Your task to perform on an android device: install app "Facebook Lite" Image 0: 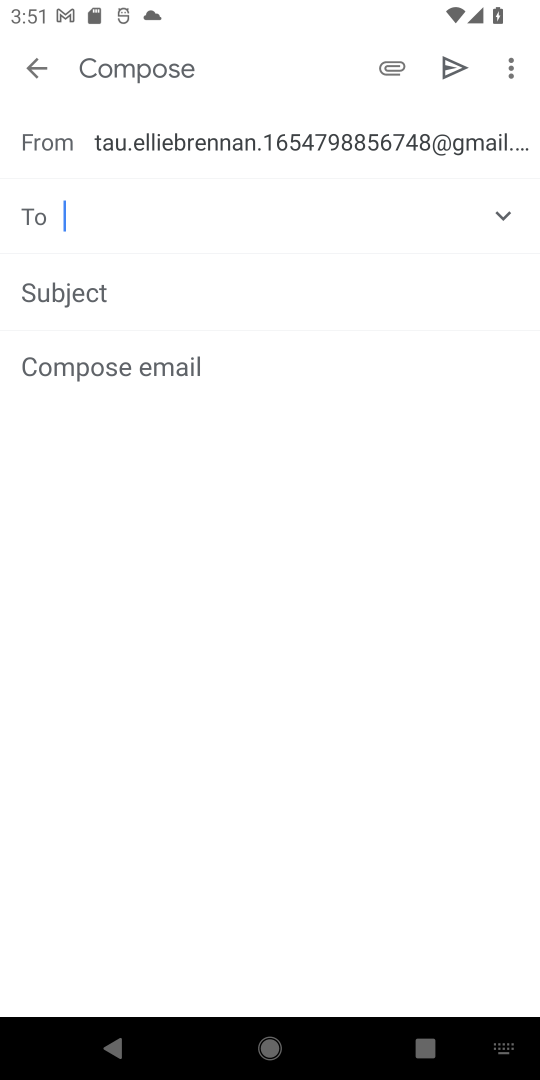
Step 0: press back button
Your task to perform on an android device: install app "Facebook Lite" Image 1: 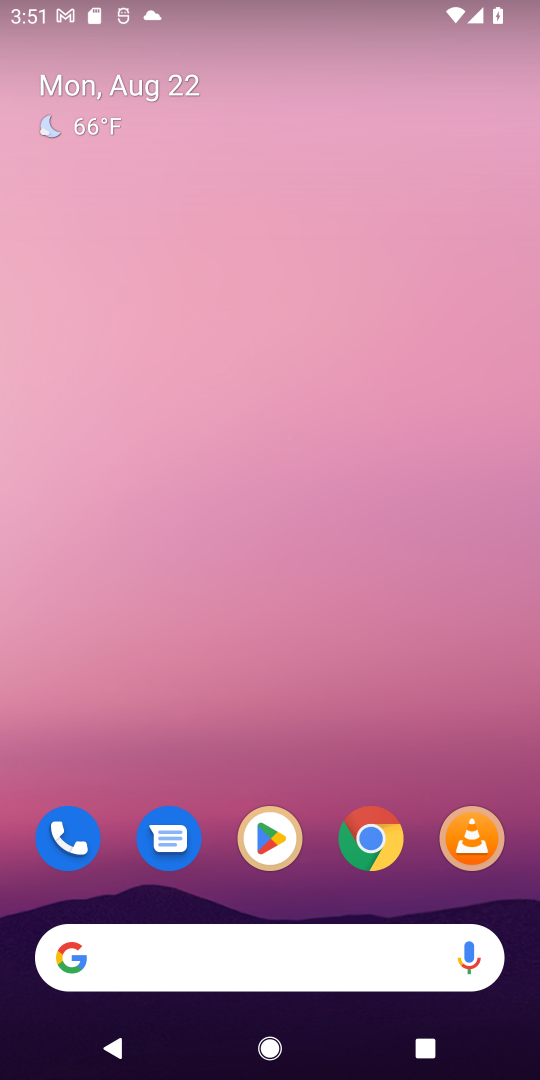
Step 1: click (269, 846)
Your task to perform on an android device: install app "Facebook Lite" Image 2: 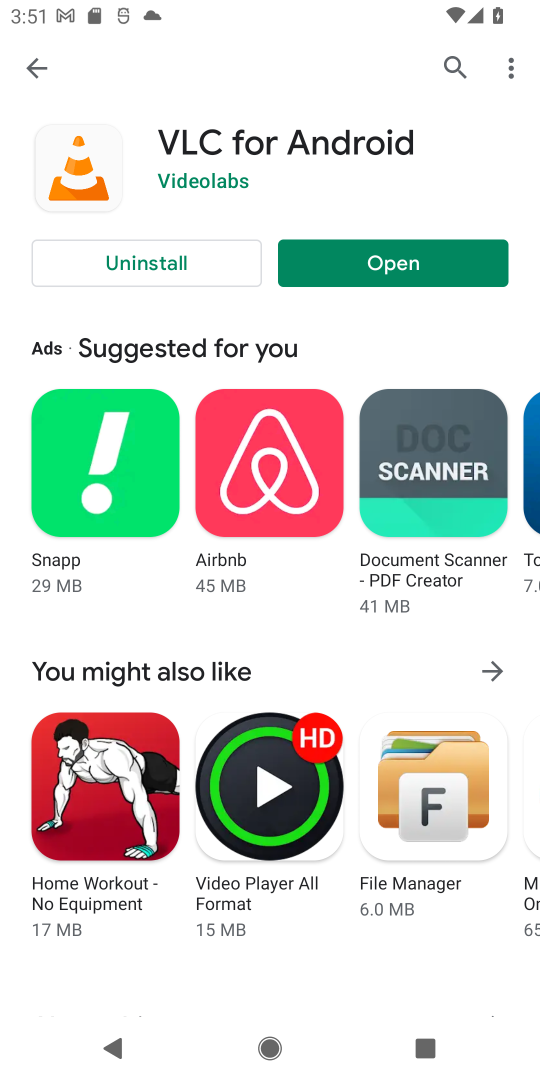
Step 2: click (449, 58)
Your task to perform on an android device: install app "Facebook Lite" Image 3: 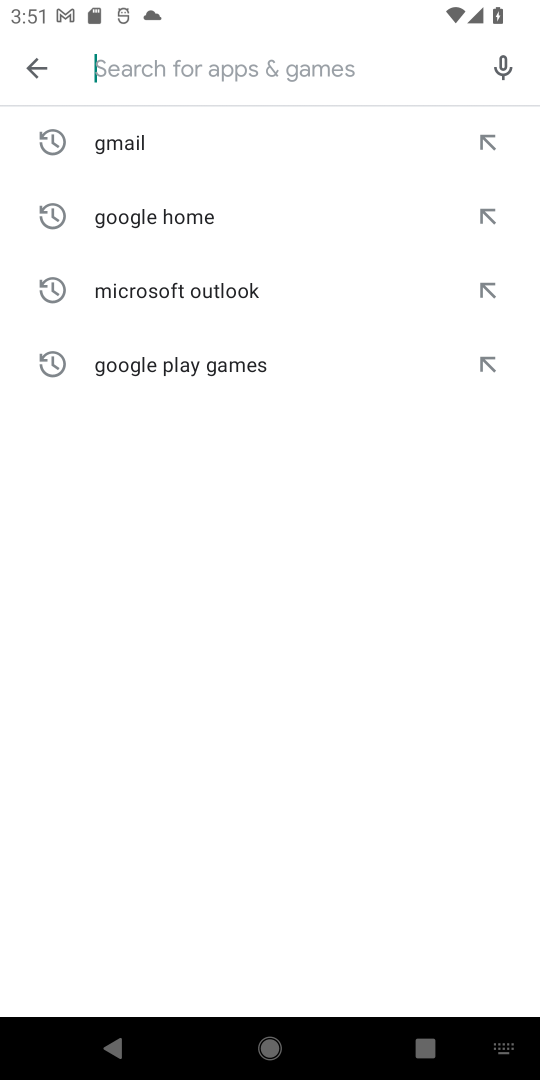
Step 3: click (179, 85)
Your task to perform on an android device: install app "Facebook Lite" Image 4: 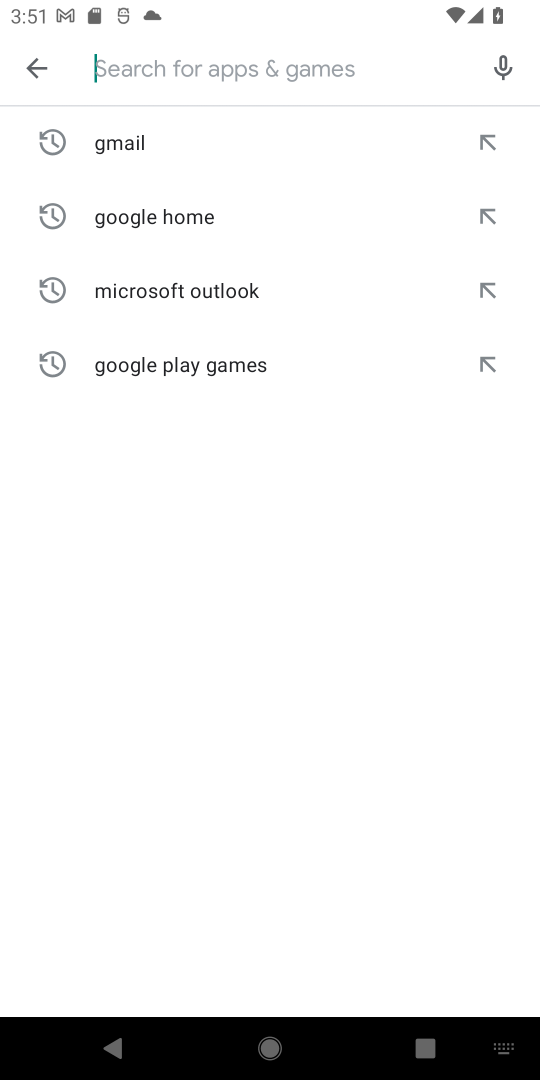
Step 4: type "Facebook Lite"
Your task to perform on an android device: install app "Facebook Lite" Image 5: 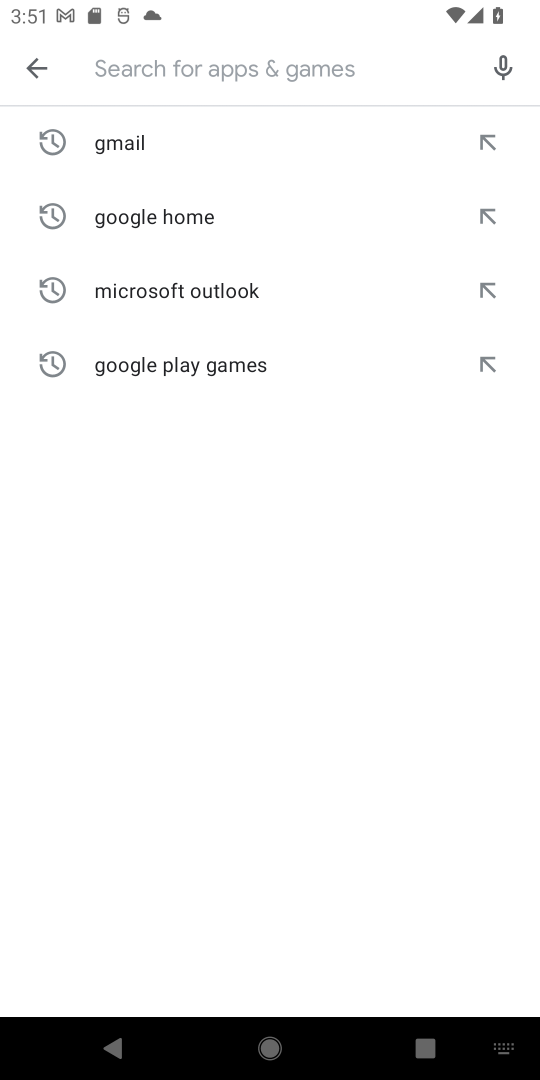
Step 5: click (301, 643)
Your task to perform on an android device: install app "Facebook Lite" Image 6: 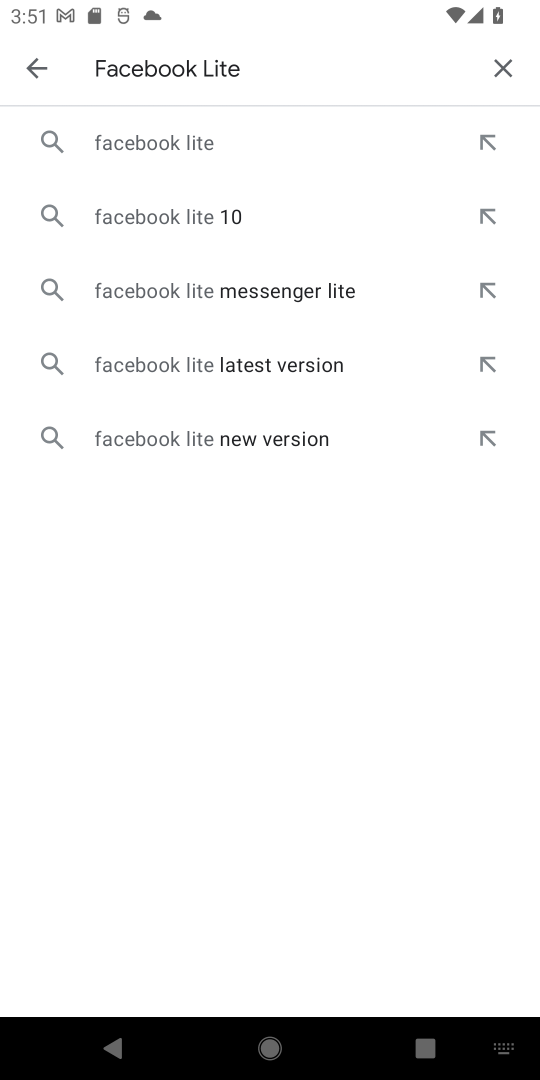
Step 6: click (228, 154)
Your task to perform on an android device: install app "Facebook Lite" Image 7: 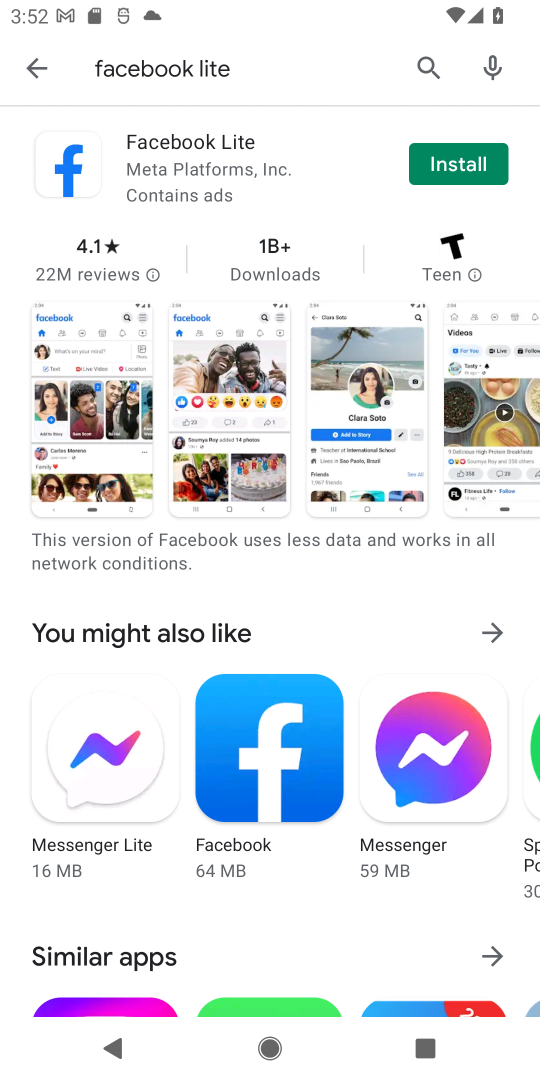
Step 7: click (486, 164)
Your task to perform on an android device: install app "Facebook Lite" Image 8: 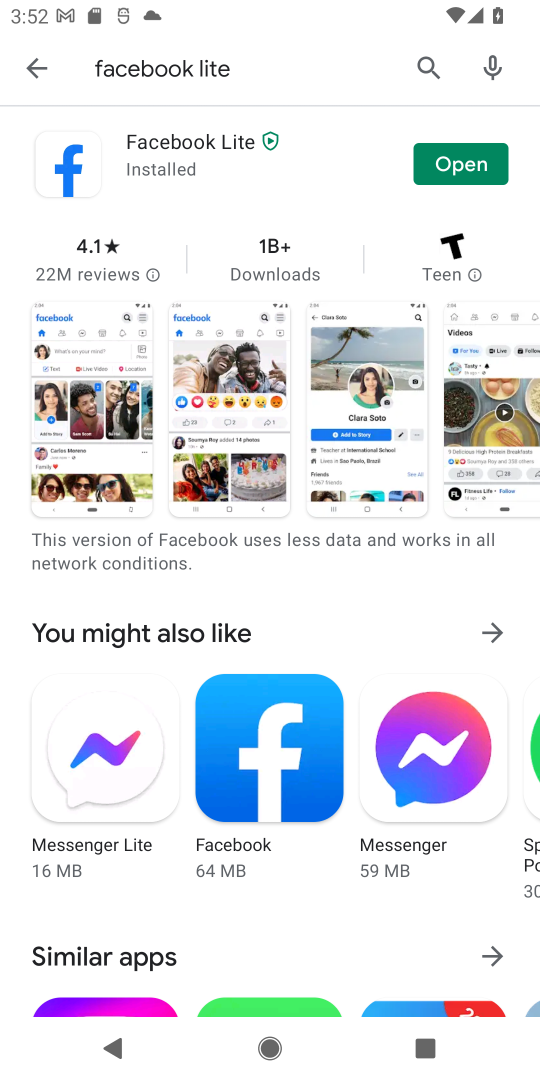
Step 8: task complete